Your task to perform on an android device: change the upload size in google photos Image 0: 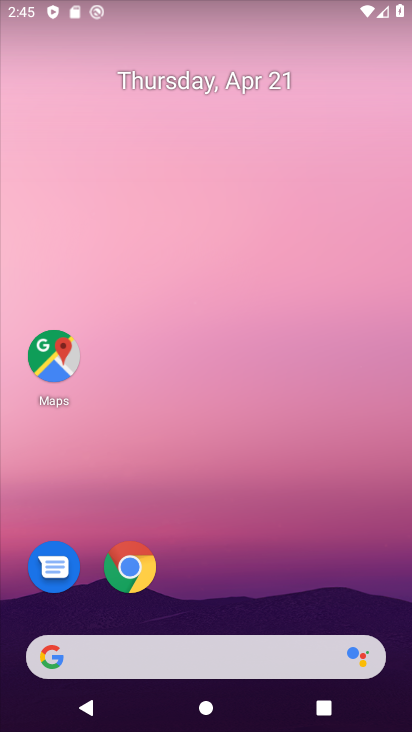
Step 0: drag from (313, 602) to (244, 244)
Your task to perform on an android device: change the upload size in google photos Image 1: 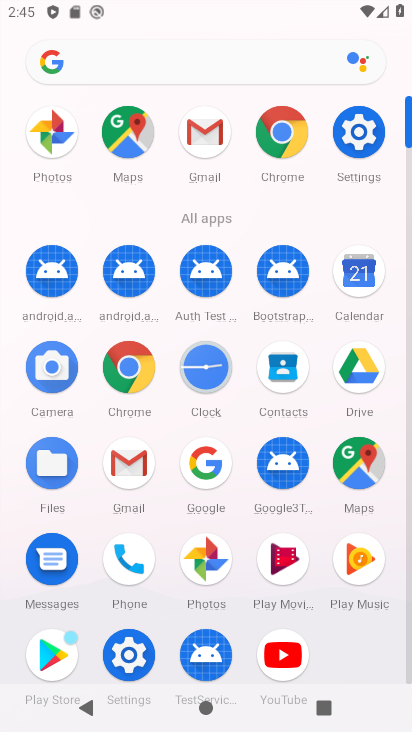
Step 1: click (54, 145)
Your task to perform on an android device: change the upload size in google photos Image 2: 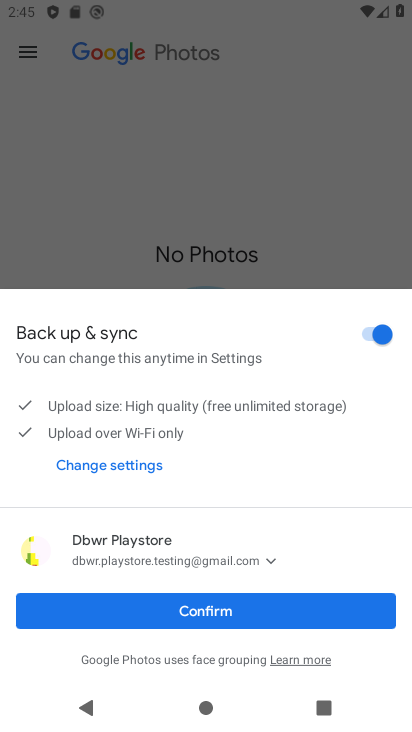
Step 2: click (134, 471)
Your task to perform on an android device: change the upload size in google photos Image 3: 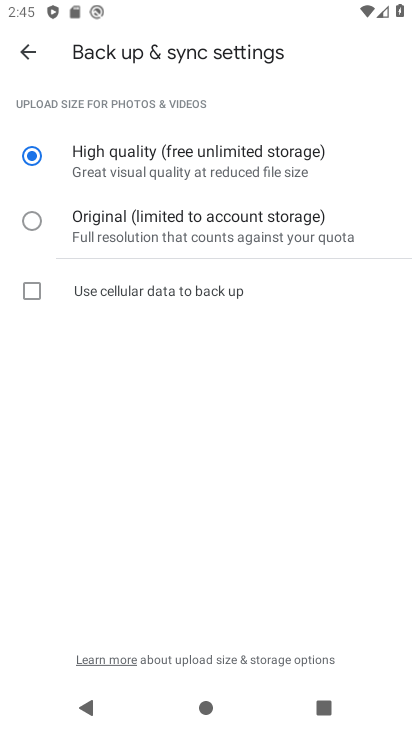
Step 3: click (178, 235)
Your task to perform on an android device: change the upload size in google photos Image 4: 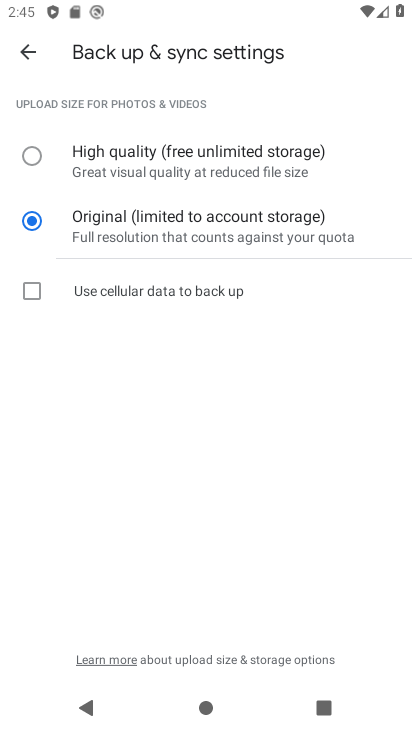
Step 4: task complete